Your task to perform on an android device: Open Google Maps Image 0: 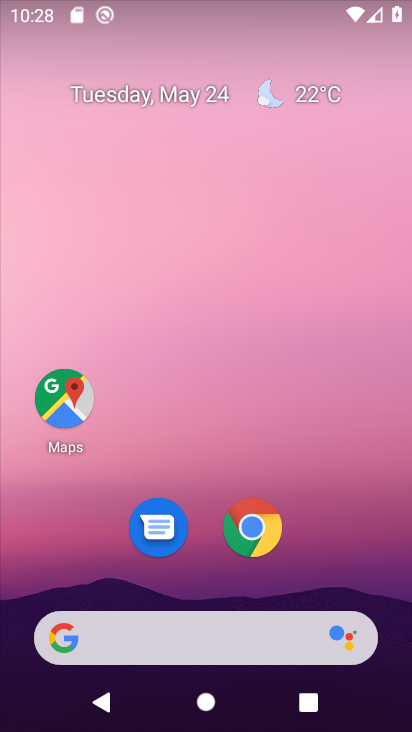
Step 0: press home button
Your task to perform on an android device: Open Google Maps Image 1: 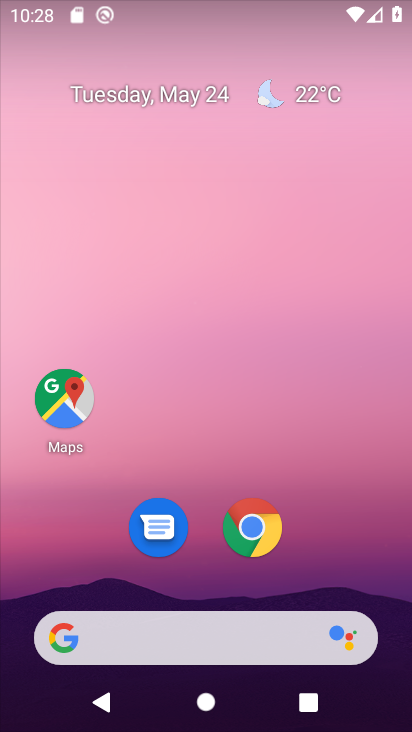
Step 1: click (66, 413)
Your task to perform on an android device: Open Google Maps Image 2: 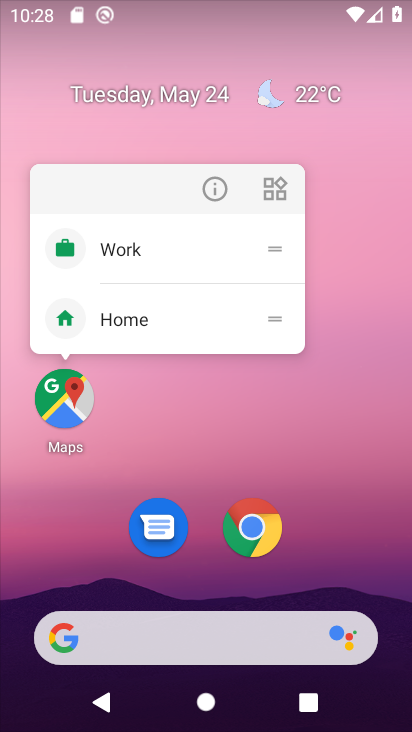
Step 2: click (68, 400)
Your task to perform on an android device: Open Google Maps Image 3: 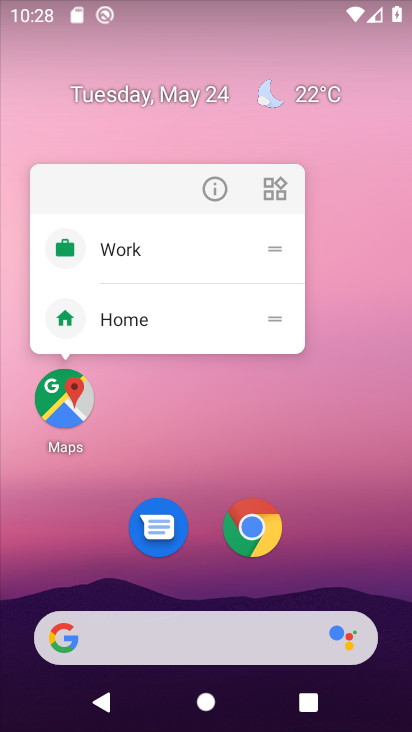
Step 3: click (61, 402)
Your task to perform on an android device: Open Google Maps Image 4: 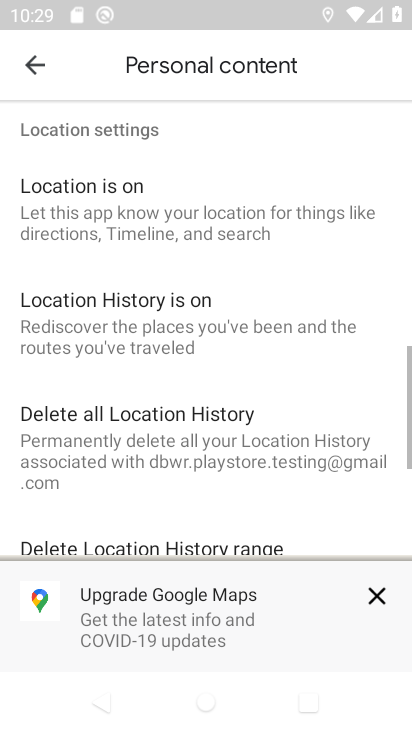
Step 4: click (28, 74)
Your task to perform on an android device: Open Google Maps Image 5: 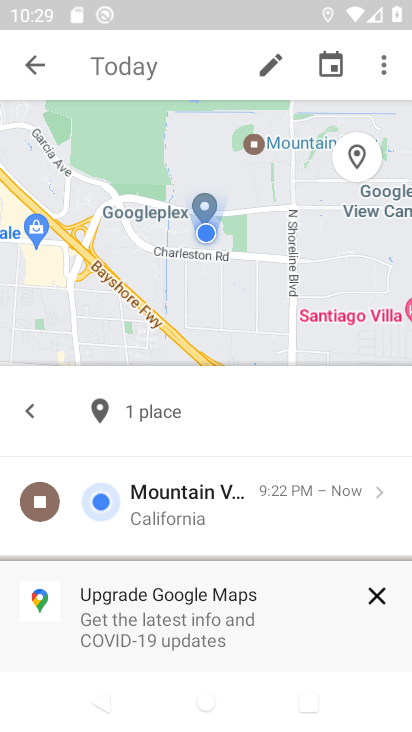
Step 5: click (378, 593)
Your task to perform on an android device: Open Google Maps Image 6: 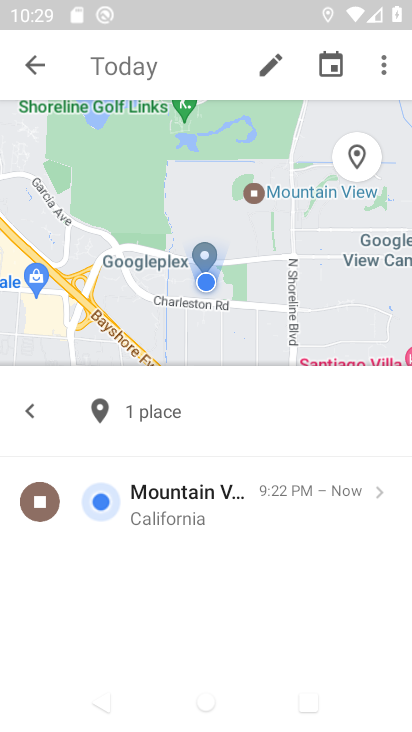
Step 6: click (35, 60)
Your task to perform on an android device: Open Google Maps Image 7: 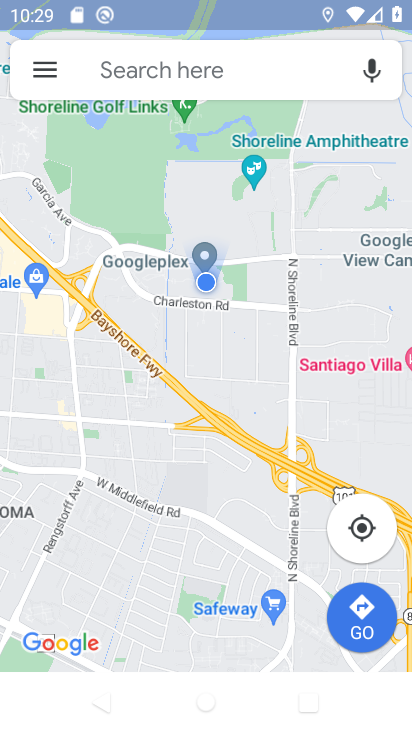
Step 7: task complete